Your task to perform on an android device: Check the news Image 0: 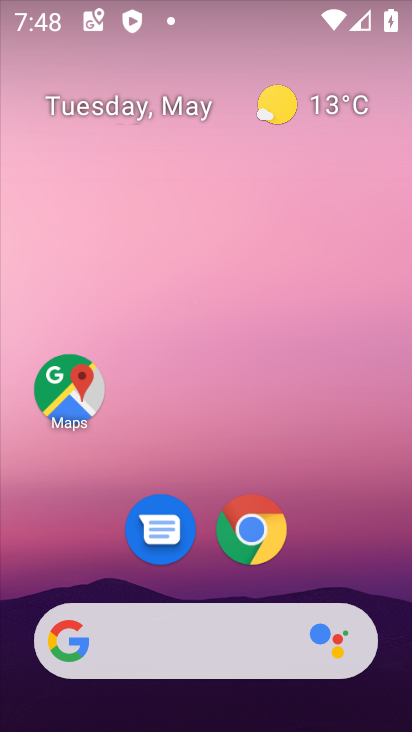
Step 0: drag from (355, 560) to (218, 8)
Your task to perform on an android device: Check the news Image 1: 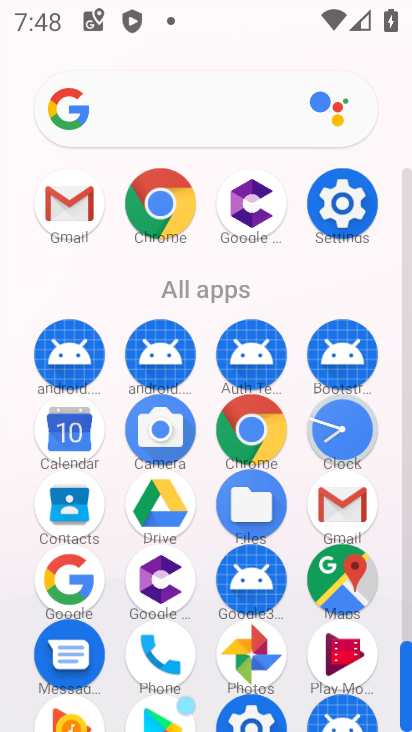
Step 1: click (172, 199)
Your task to perform on an android device: Check the news Image 2: 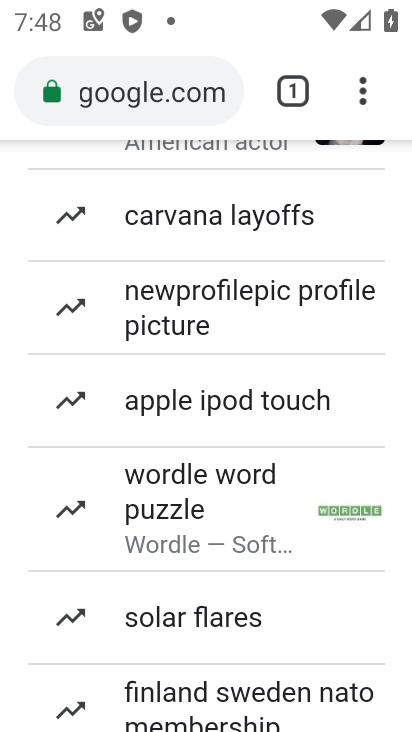
Step 2: task complete